Your task to perform on an android device: turn off airplane mode Image 0: 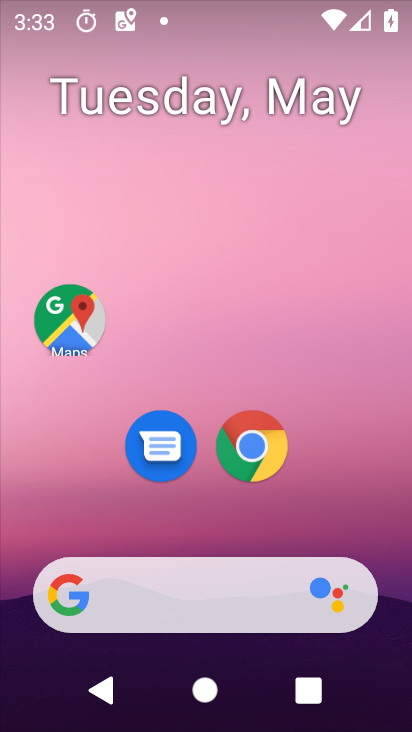
Step 0: drag from (239, 719) to (250, 88)
Your task to perform on an android device: turn off airplane mode Image 1: 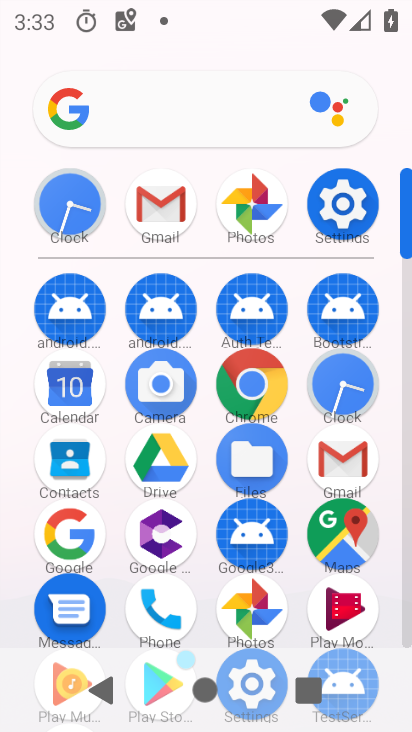
Step 1: click (348, 206)
Your task to perform on an android device: turn off airplane mode Image 2: 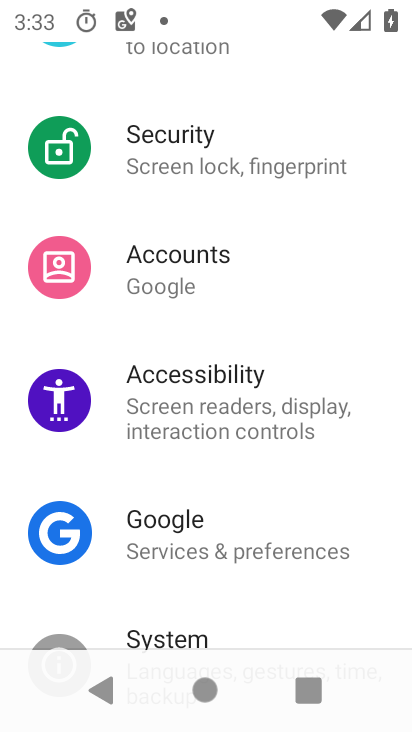
Step 2: drag from (240, 140) to (231, 466)
Your task to perform on an android device: turn off airplane mode Image 3: 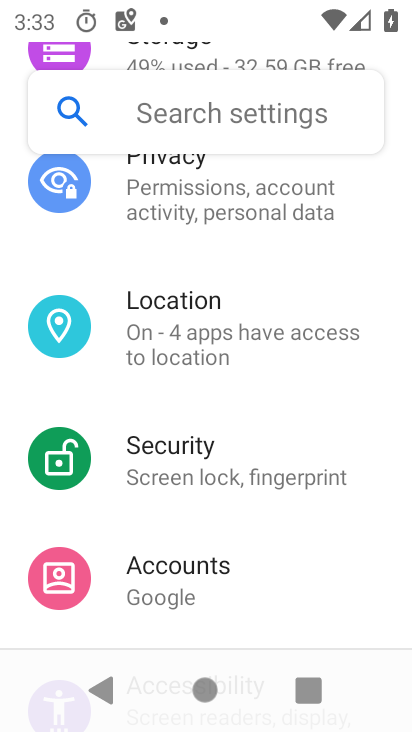
Step 3: drag from (216, 216) to (225, 496)
Your task to perform on an android device: turn off airplane mode Image 4: 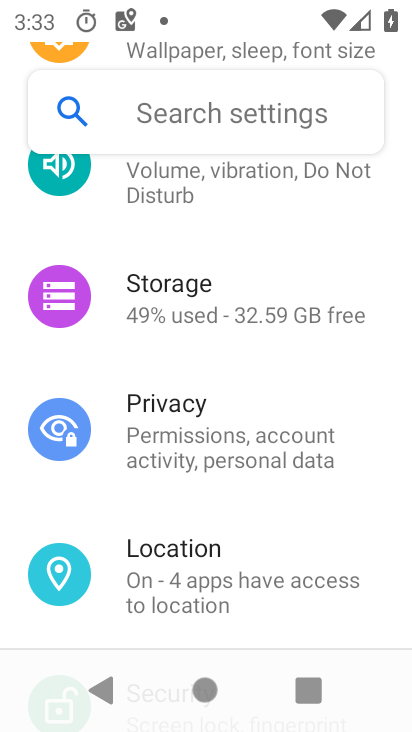
Step 4: drag from (226, 214) to (238, 541)
Your task to perform on an android device: turn off airplane mode Image 5: 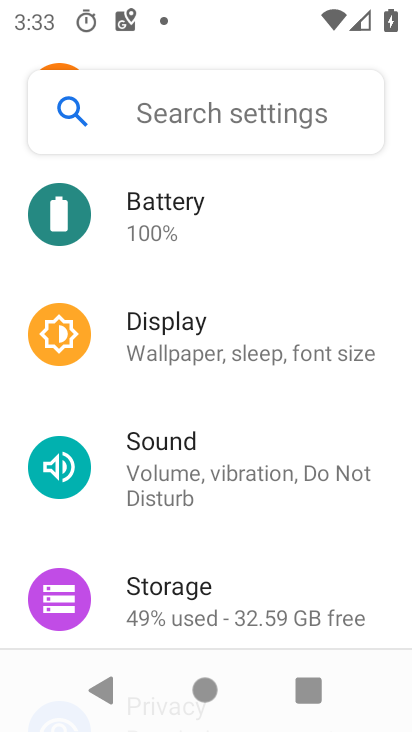
Step 5: drag from (220, 192) to (251, 636)
Your task to perform on an android device: turn off airplane mode Image 6: 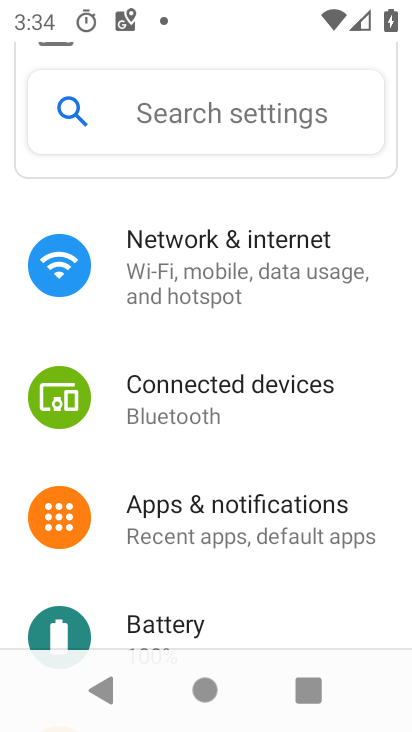
Step 6: click (181, 274)
Your task to perform on an android device: turn off airplane mode Image 7: 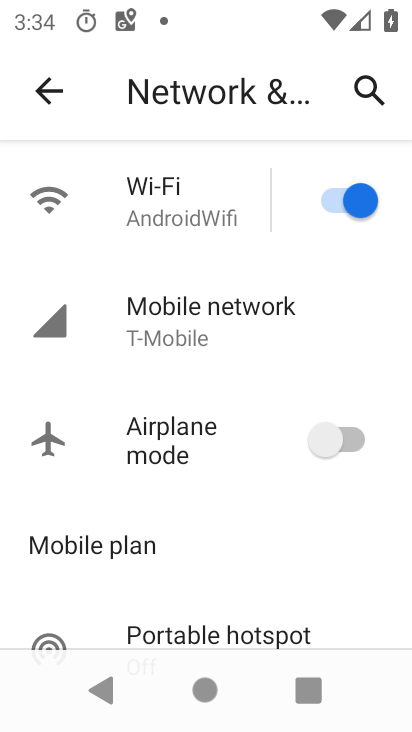
Step 7: task complete